Your task to perform on an android device: empty trash in google photos Image 0: 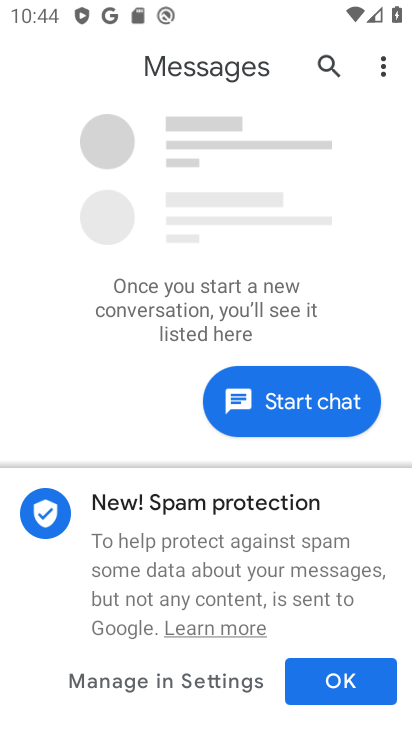
Step 0: press home button
Your task to perform on an android device: empty trash in google photos Image 1: 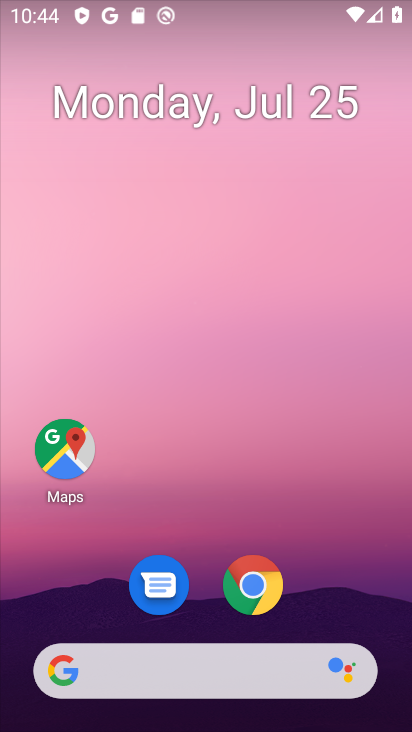
Step 1: drag from (343, 587) to (324, 42)
Your task to perform on an android device: empty trash in google photos Image 2: 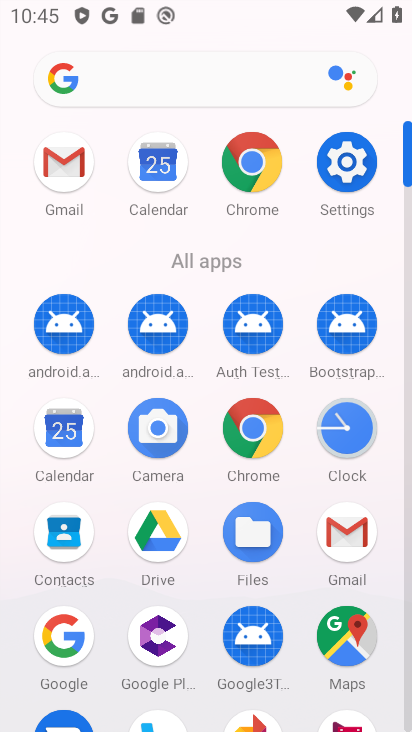
Step 2: drag from (295, 390) to (286, 127)
Your task to perform on an android device: empty trash in google photos Image 3: 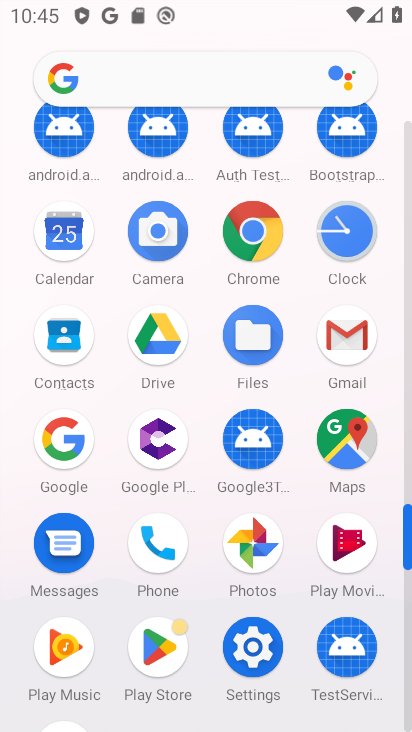
Step 3: click (258, 536)
Your task to perform on an android device: empty trash in google photos Image 4: 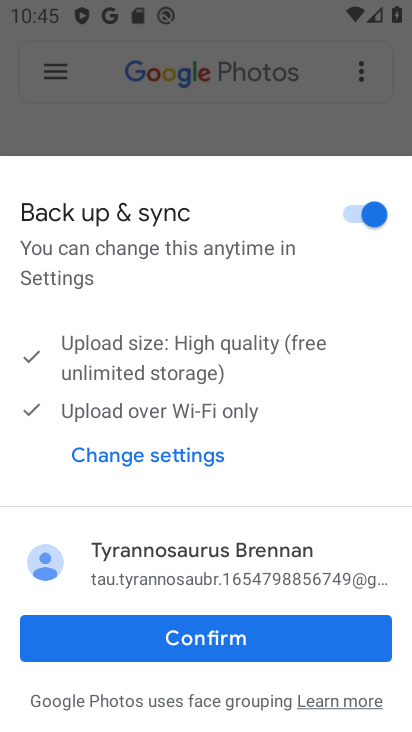
Step 4: click (295, 650)
Your task to perform on an android device: empty trash in google photos Image 5: 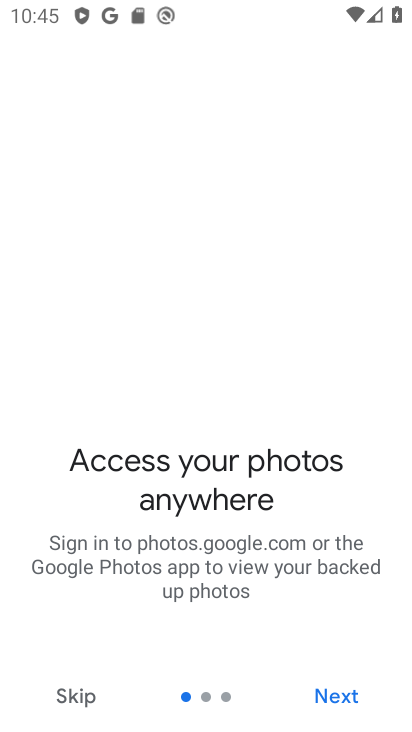
Step 5: click (333, 688)
Your task to perform on an android device: empty trash in google photos Image 6: 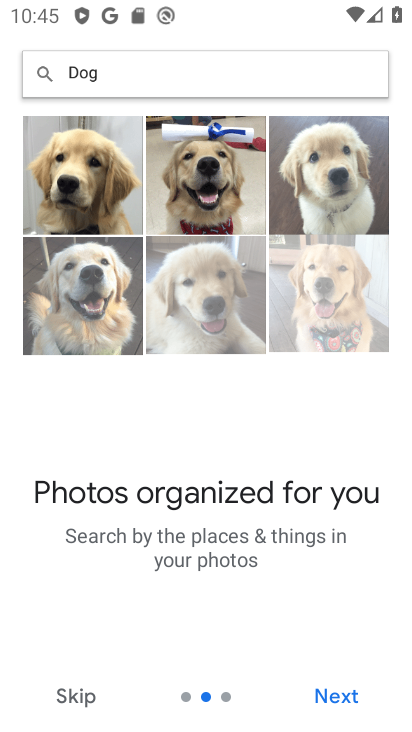
Step 6: click (334, 691)
Your task to perform on an android device: empty trash in google photos Image 7: 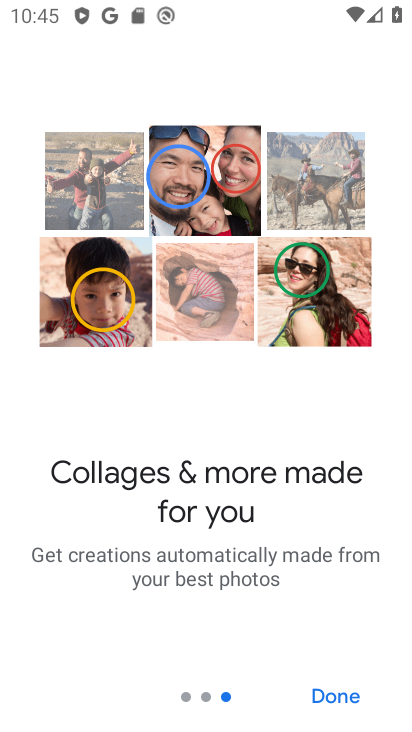
Step 7: click (339, 691)
Your task to perform on an android device: empty trash in google photos Image 8: 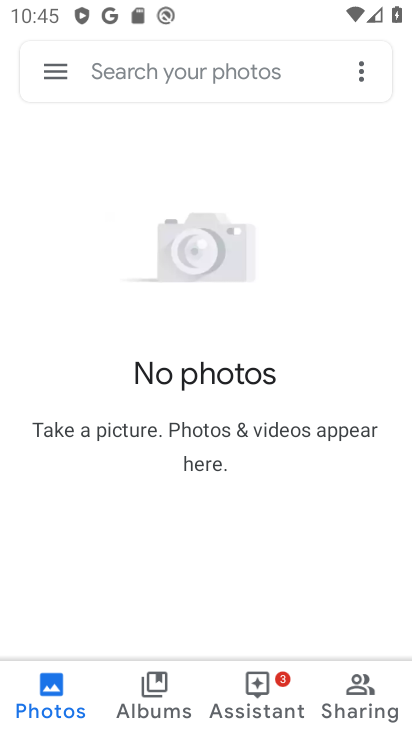
Step 8: click (56, 65)
Your task to perform on an android device: empty trash in google photos Image 9: 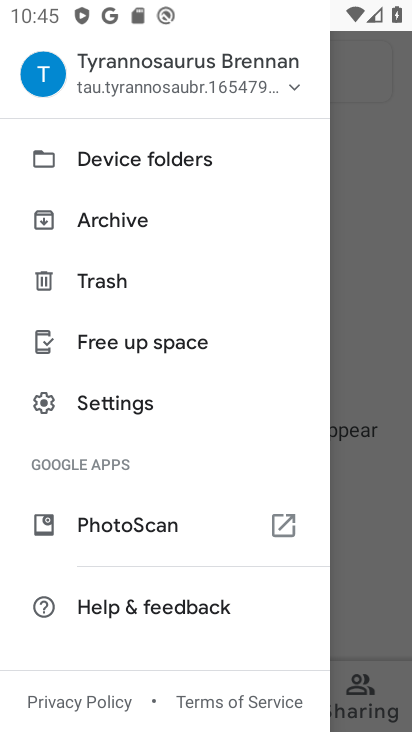
Step 9: click (109, 285)
Your task to perform on an android device: empty trash in google photos Image 10: 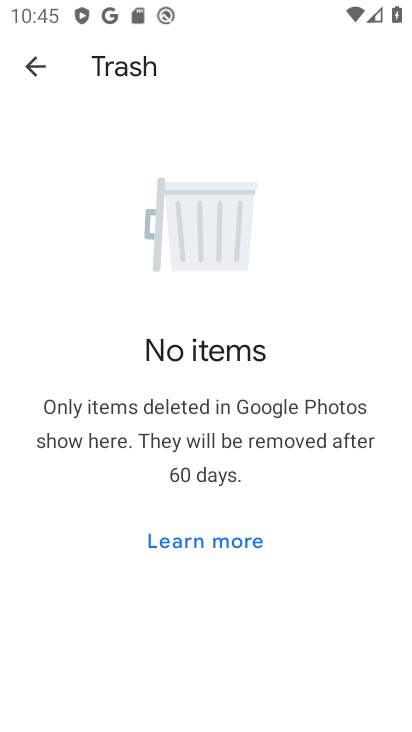
Step 10: task complete